Your task to perform on an android device: Set the phone to "Do not disturb". Image 0: 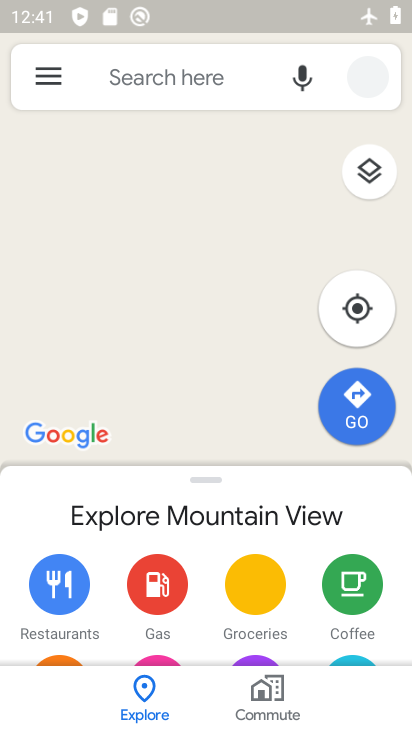
Step 0: press home button
Your task to perform on an android device: Set the phone to "Do not disturb". Image 1: 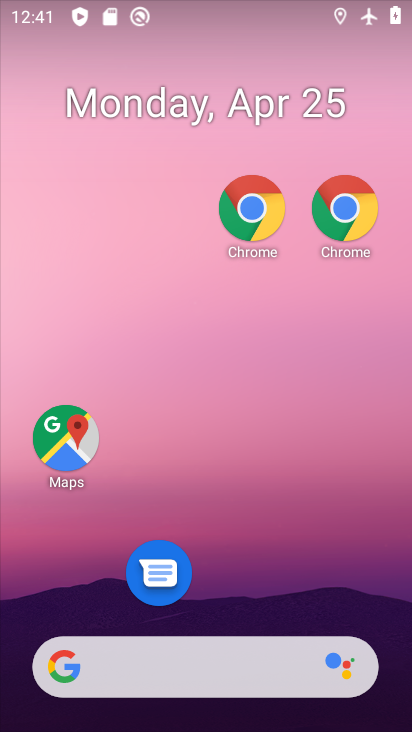
Step 1: drag from (247, 600) to (187, 9)
Your task to perform on an android device: Set the phone to "Do not disturb". Image 2: 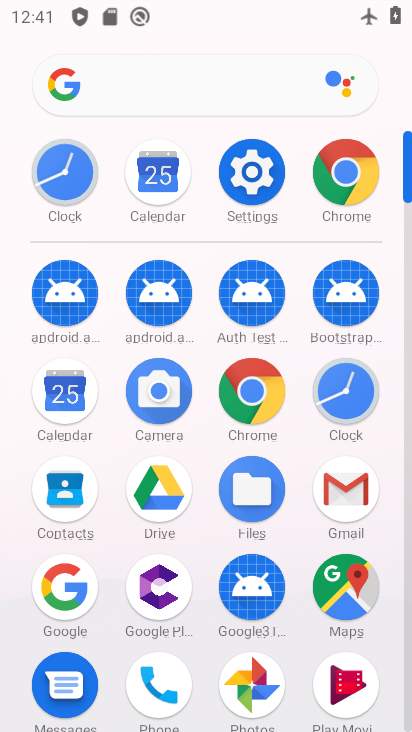
Step 2: click (248, 171)
Your task to perform on an android device: Set the phone to "Do not disturb". Image 3: 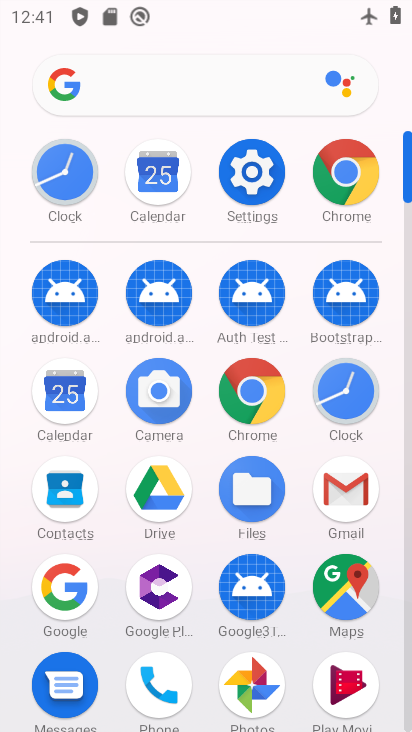
Step 3: click (248, 171)
Your task to perform on an android device: Set the phone to "Do not disturb". Image 4: 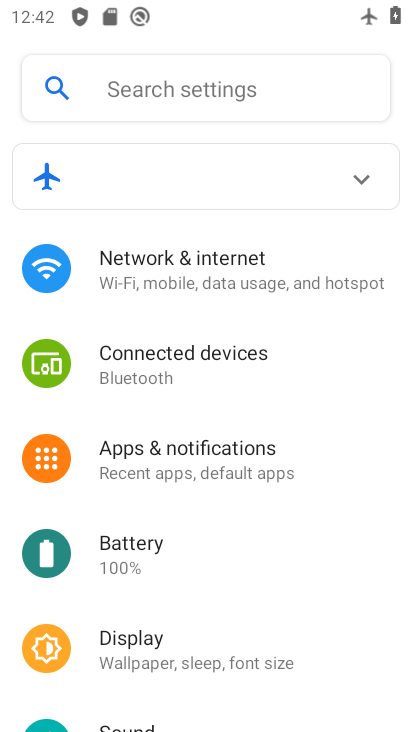
Step 4: drag from (176, 622) to (168, 113)
Your task to perform on an android device: Set the phone to "Do not disturb". Image 5: 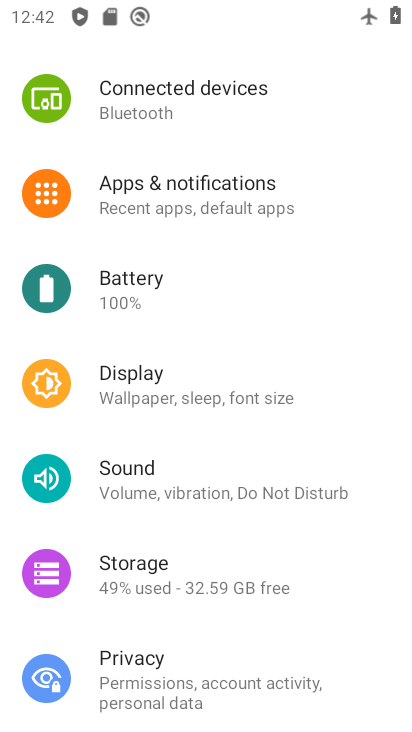
Step 5: drag from (182, 366) to (192, 105)
Your task to perform on an android device: Set the phone to "Do not disturb". Image 6: 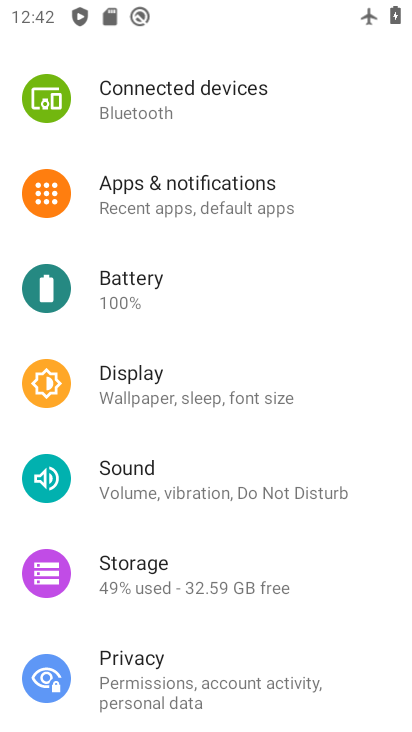
Step 6: click (125, 488)
Your task to perform on an android device: Set the phone to "Do not disturb". Image 7: 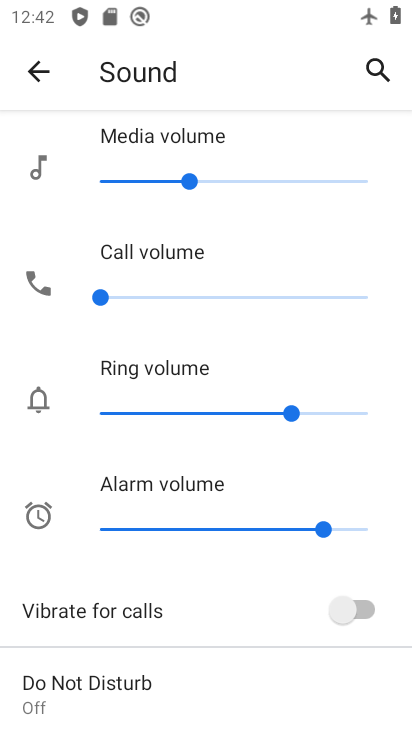
Step 7: drag from (230, 551) to (162, 92)
Your task to perform on an android device: Set the phone to "Do not disturb". Image 8: 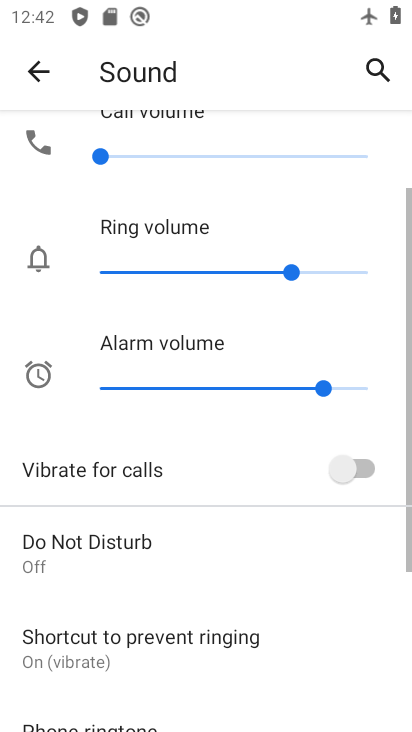
Step 8: drag from (214, 521) to (155, 89)
Your task to perform on an android device: Set the phone to "Do not disturb". Image 9: 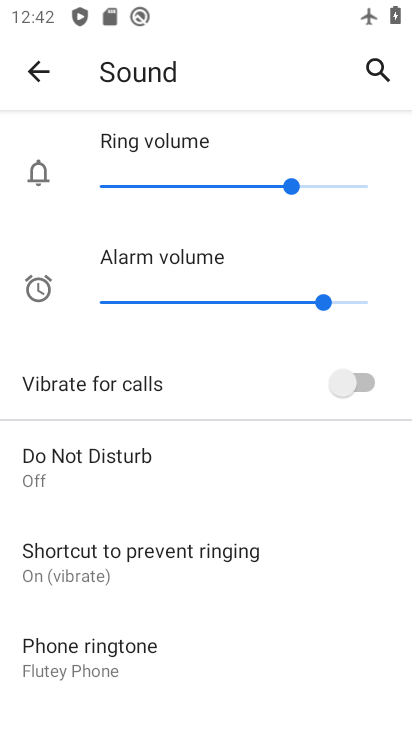
Step 9: click (94, 445)
Your task to perform on an android device: Set the phone to "Do not disturb". Image 10: 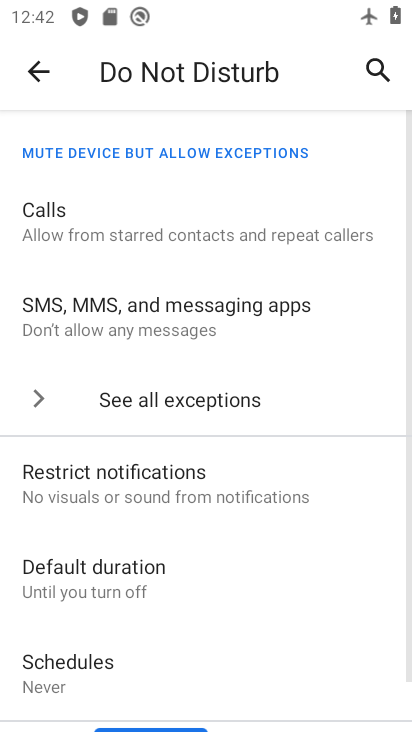
Step 10: drag from (175, 569) to (138, 57)
Your task to perform on an android device: Set the phone to "Do not disturb". Image 11: 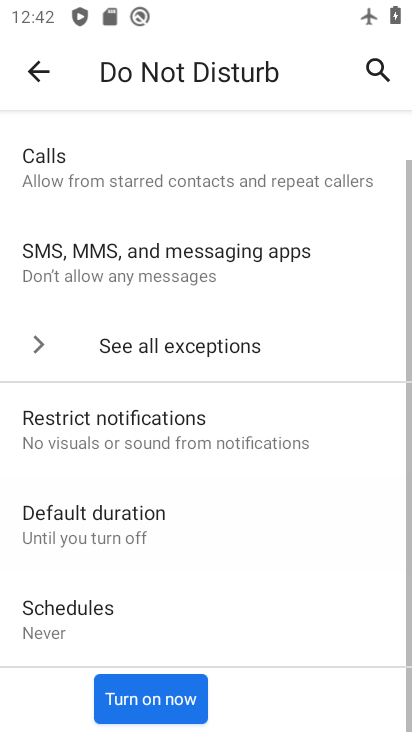
Step 11: drag from (233, 345) to (186, 186)
Your task to perform on an android device: Set the phone to "Do not disturb". Image 12: 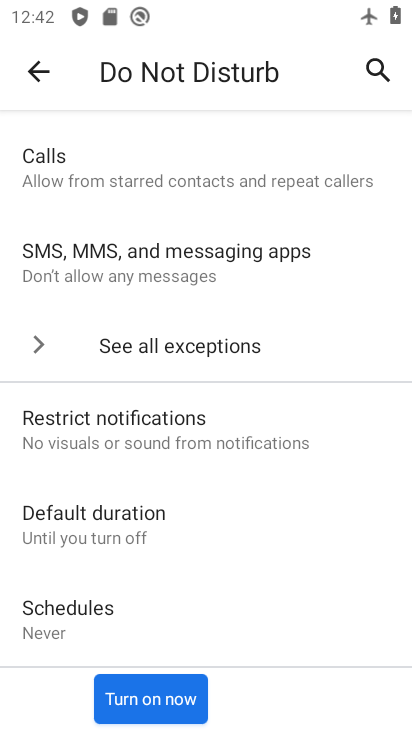
Step 12: click (158, 693)
Your task to perform on an android device: Set the phone to "Do not disturb". Image 13: 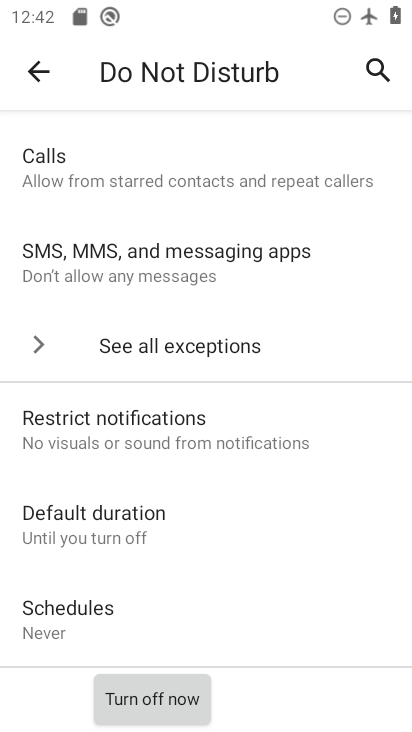
Step 13: task complete